Your task to perform on an android device: Search for seafood restaurants on Google Maps Image 0: 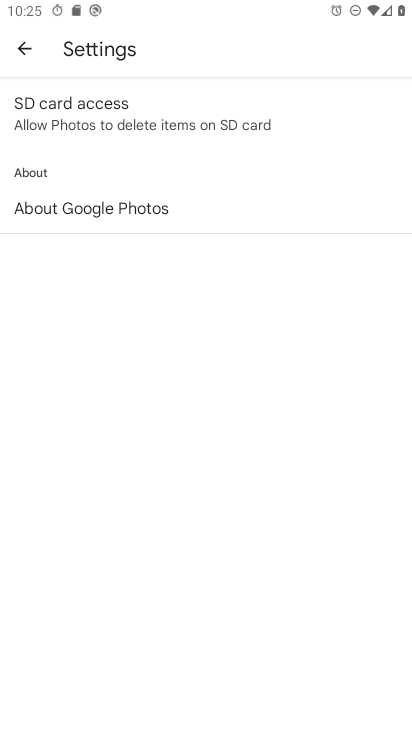
Step 0: press home button
Your task to perform on an android device: Search for seafood restaurants on Google Maps Image 1: 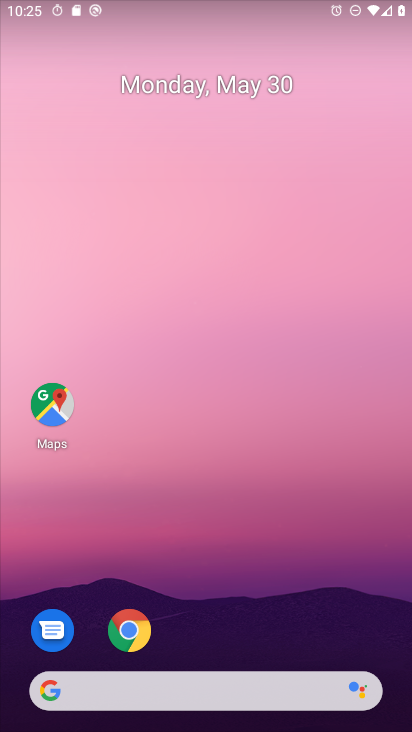
Step 1: drag from (325, 640) to (266, 15)
Your task to perform on an android device: Search for seafood restaurants on Google Maps Image 2: 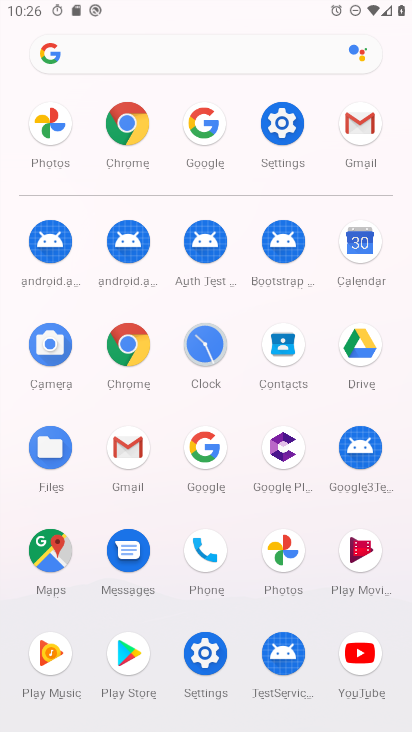
Step 2: click (52, 550)
Your task to perform on an android device: Search for seafood restaurants on Google Maps Image 3: 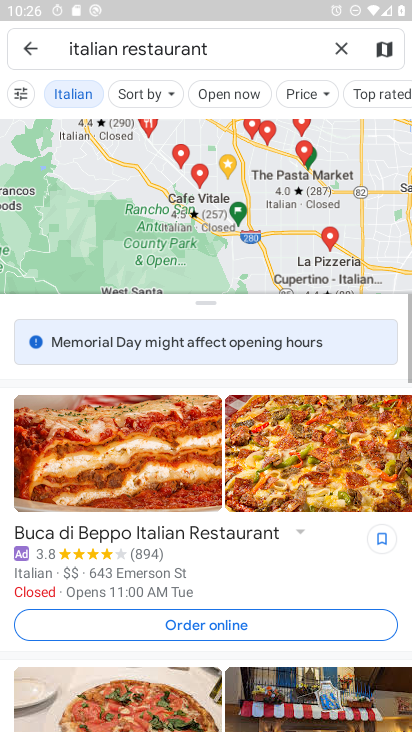
Step 3: click (333, 57)
Your task to perform on an android device: Search for seafood restaurants on Google Maps Image 4: 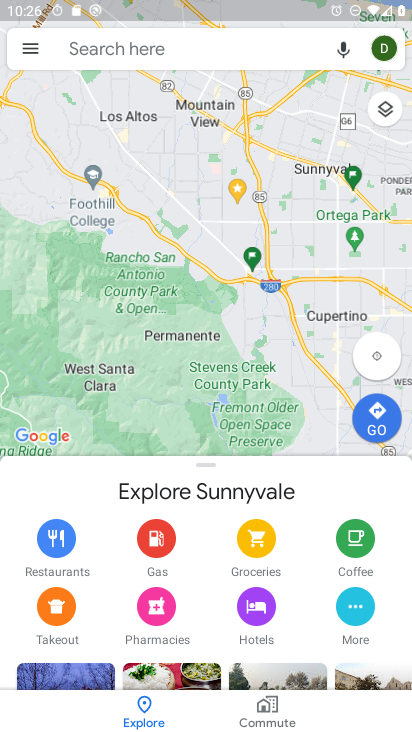
Step 4: click (121, 40)
Your task to perform on an android device: Search for seafood restaurants on Google Maps Image 5: 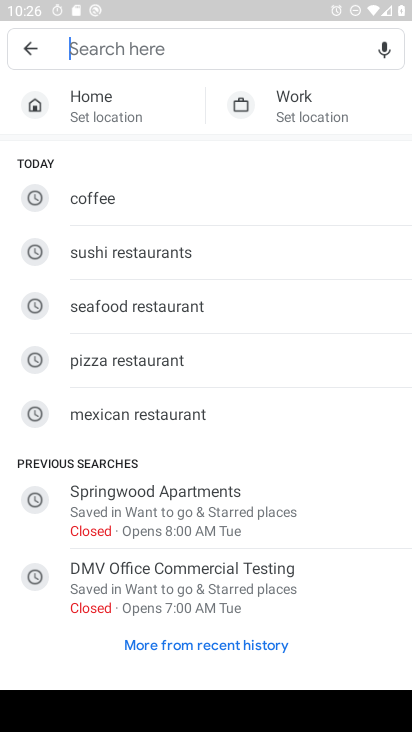
Step 5: click (179, 300)
Your task to perform on an android device: Search for seafood restaurants on Google Maps Image 6: 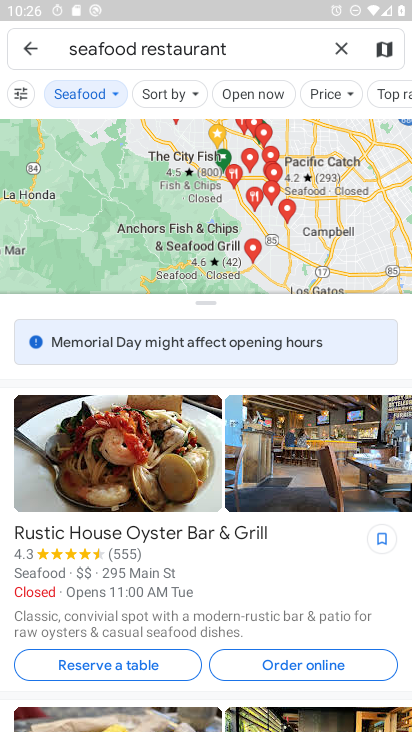
Step 6: task complete